Your task to perform on an android device: Open Google Chrome Image 0: 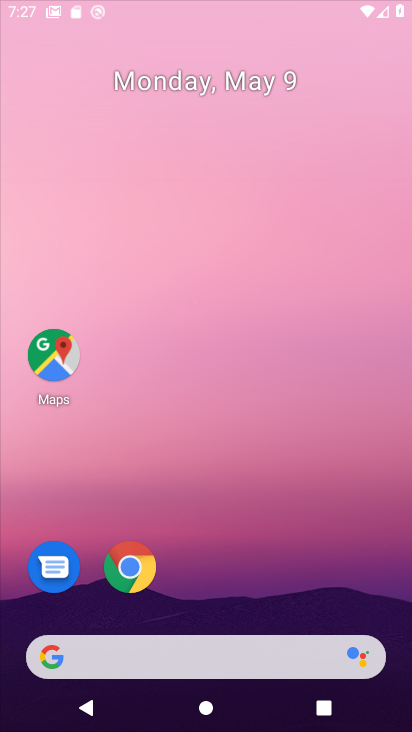
Step 0: click (268, 129)
Your task to perform on an android device: Open Google Chrome Image 1: 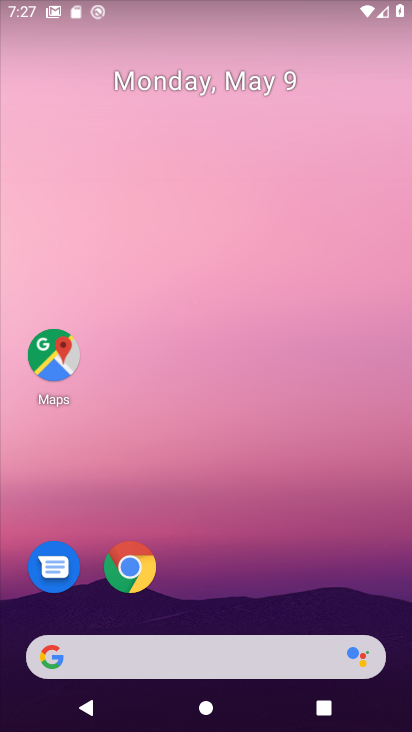
Step 1: drag from (197, 596) to (223, 259)
Your task to perform on an android device: Open Google Chrome Image 2: 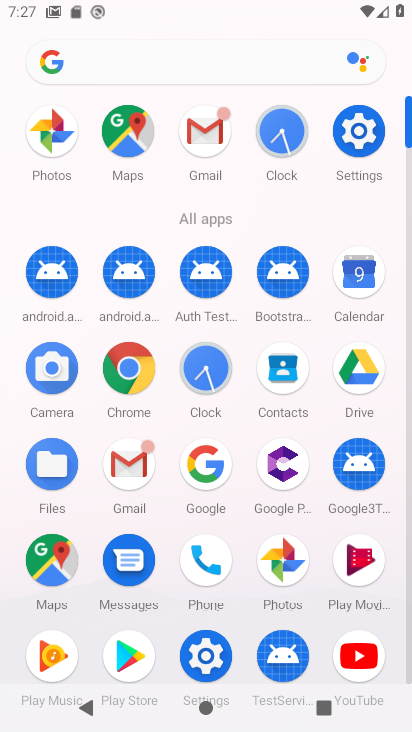
Step 2: click (134, 355)
Your task to perform on an android device: Open Google Chrome Image 3: 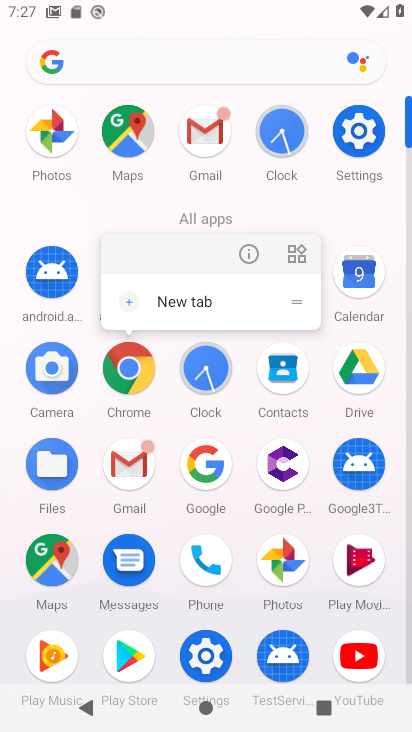
Step 3: click (248, 256)
Your task to perform on an android device: Open Google Chrome Image 4: 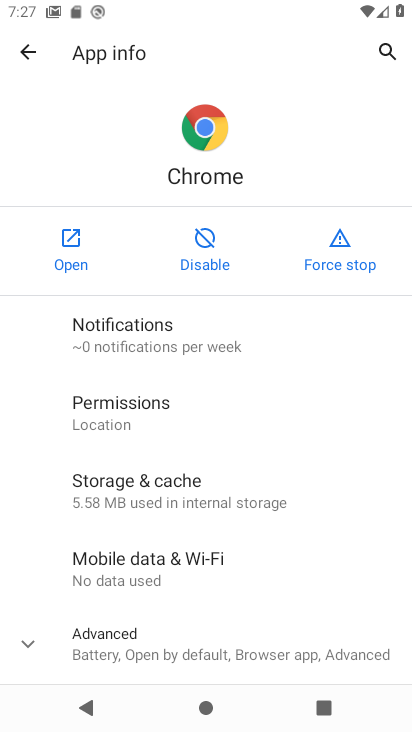
Step 4: click (74, 247)
Your task to perform on an android device: Open Google Chrome Image 5: 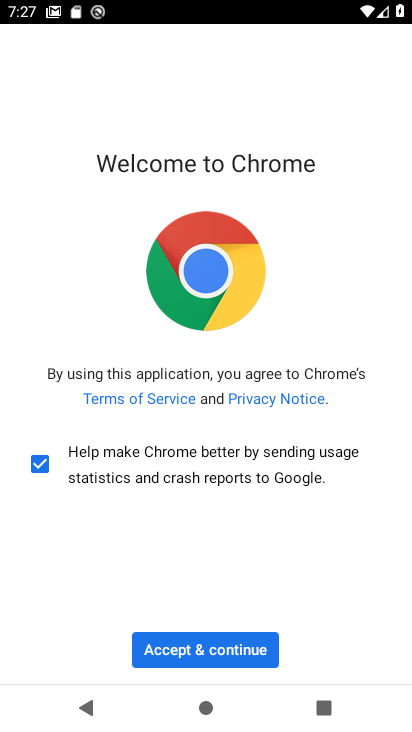
Step 5: click (183, 661)
Your task to perform on an android device: Open Google Chrome Image 6: 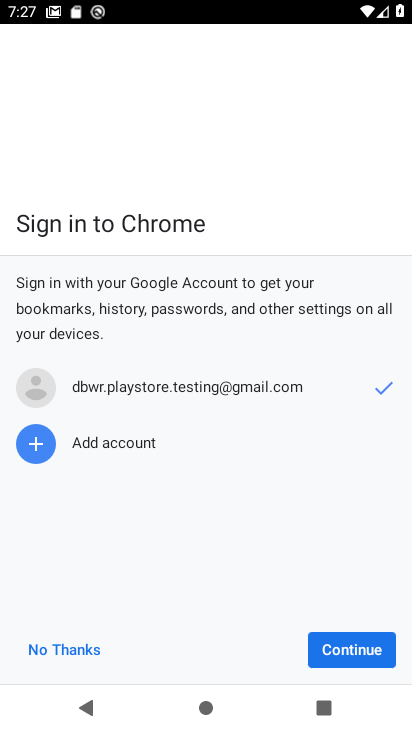
Step 6: click (56, 646)
Your task to perform on an android device: Open Google Chrome Image 7: 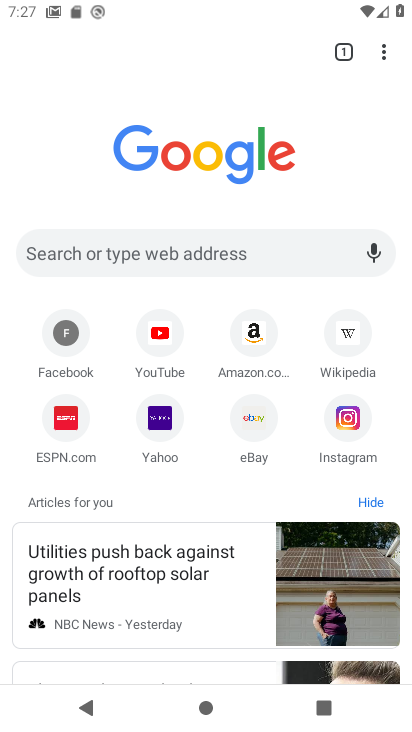
Step 7: task complete